Your task to perform on an android device: Go to battery settings Image 0: 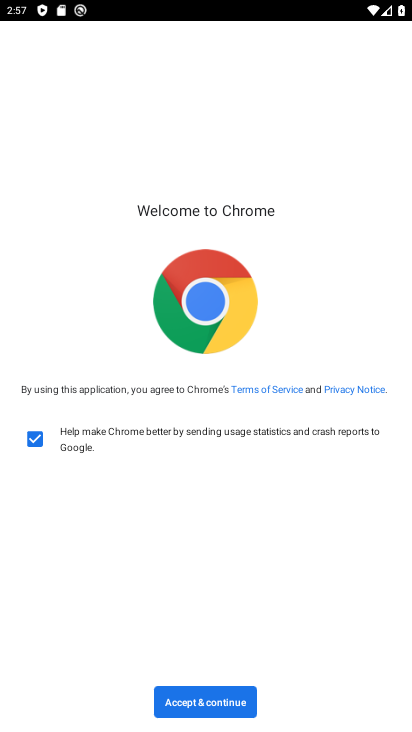
Step 0: click (215, 701)
Your task to perform on an android device: Go to battery settings Image 1: 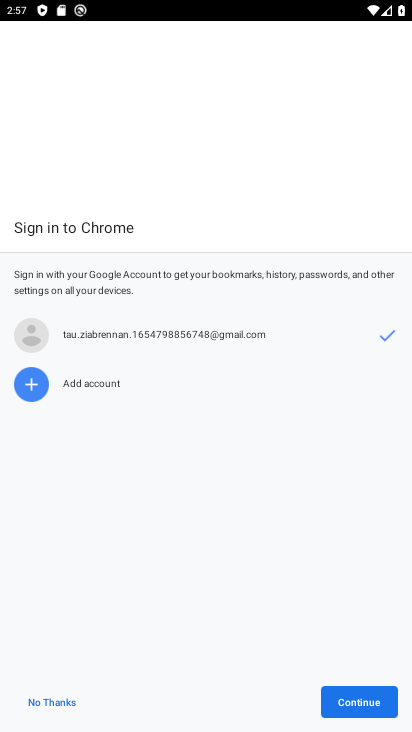
Step 1: click (371, 707)
Your task to perform on an android device: Go to battery settings Image 2: 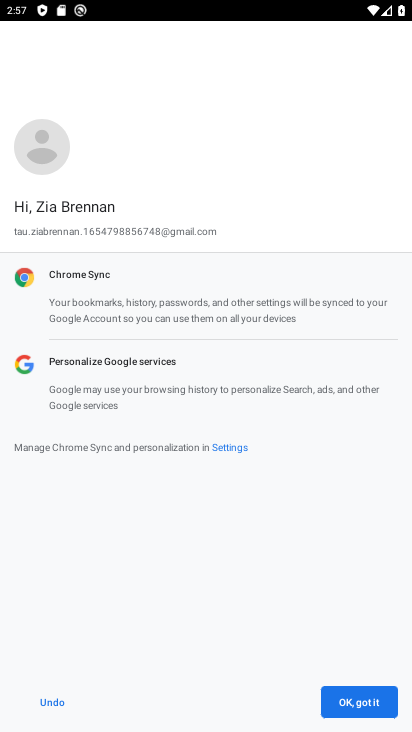
Step 2: click (371, 703)
Your task to perform on an android device: Go to battery settings Image 3: 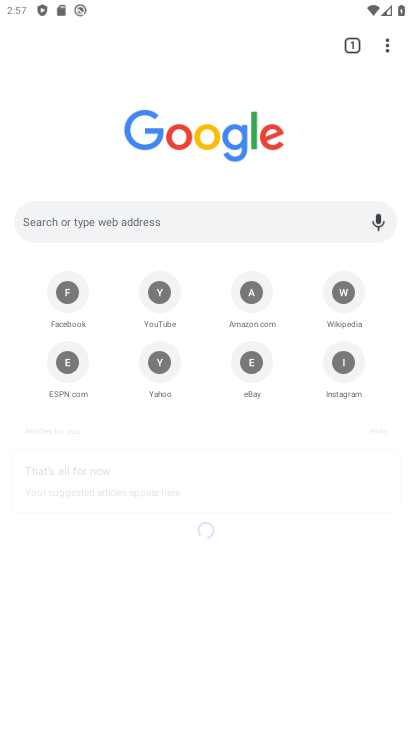
Step 3: press home button
Your task to perform on an android device: Go to battery settings Image 4: 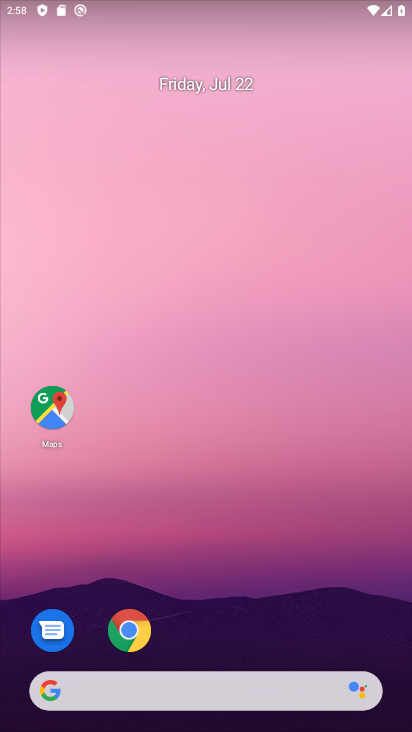
Step 4: drag from (391, 687) to (250, 71)
Your task to perform on an android device: Go to battery settings Image 5: 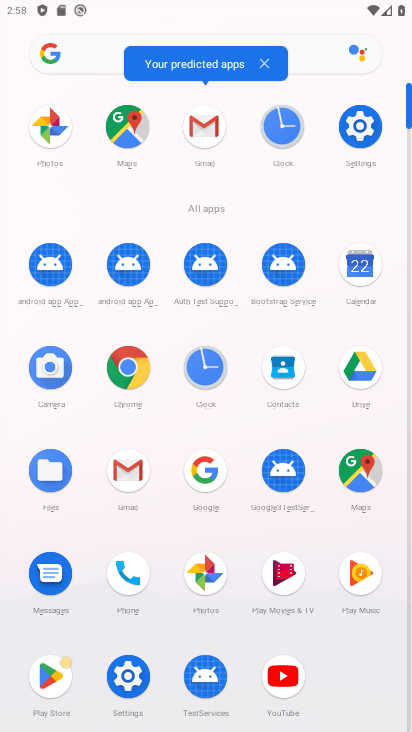
Step 5: click (356, 123)
Your task to perform on an android device: Go to battery settings Image 6: 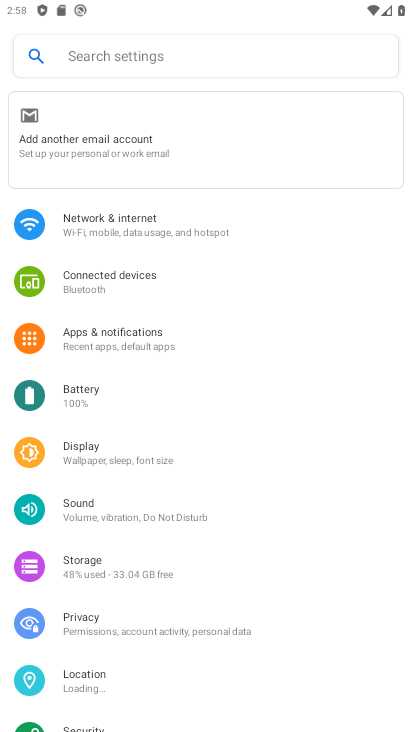
Step 6: drag from (240, 669) to (255, 339)
Your task to perform on an android device: Go to battery settings Image 7: 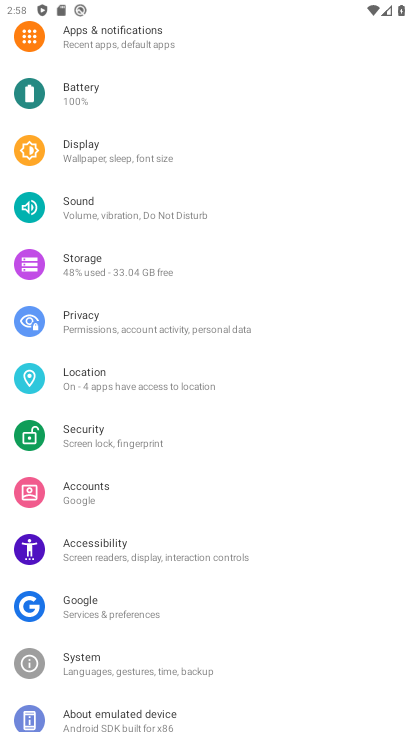
Step 7: click (78, 88)
Your task to perform on an android device: Go to battery settings Image 8: 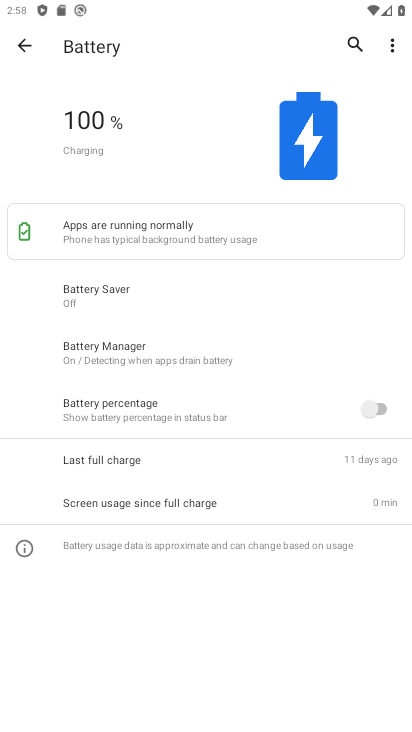
Step 8: task complete